Your task to perform on an android device: toggle pop-ups in chrome Image 0: 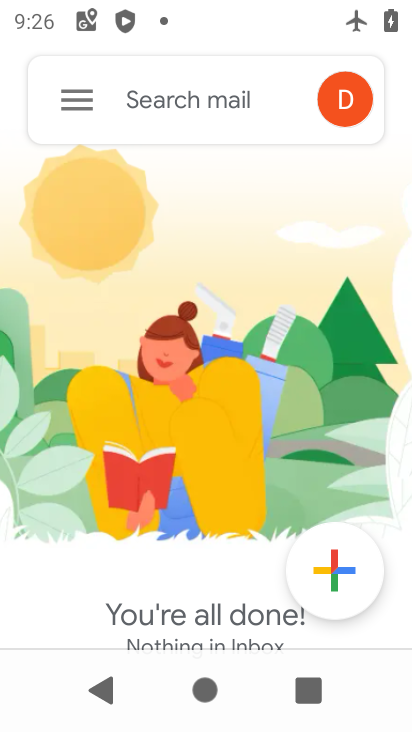
Step 0: press home button
Your task to perform on an android device: toggle pop-ups in chrome Image 1: 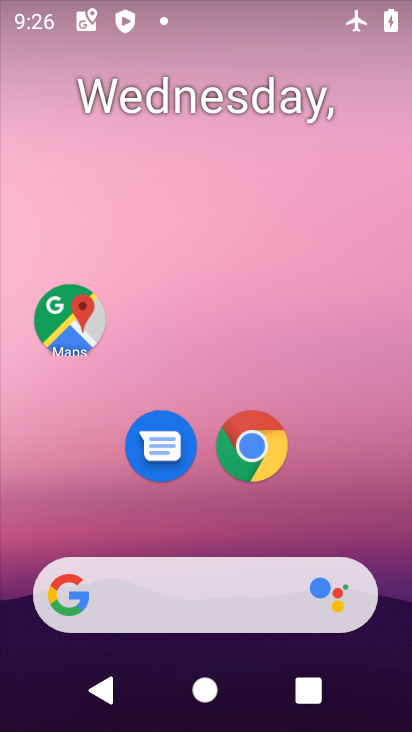
Step 1: click (265, 439)
Your task to perform on an android device: toggle pop-ups in chrome Image 2: 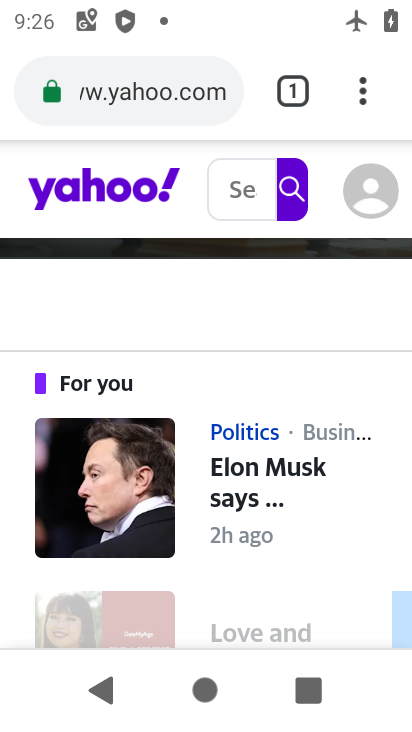
Step 2: drag from (366, 98) to (211, 482)
Your task to perform on an android device: toggle pop-ups in chrome Image 3: 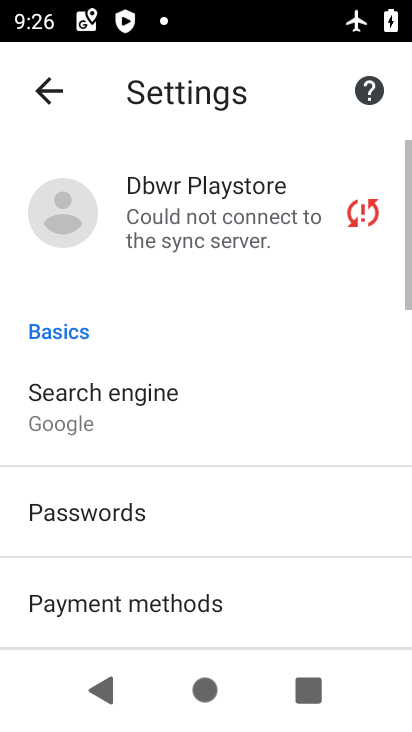
Step 3: drag from (238, 637) to (370, 254)
Your task to perform on an android device: toggle pop-ups in chrome Image 4: 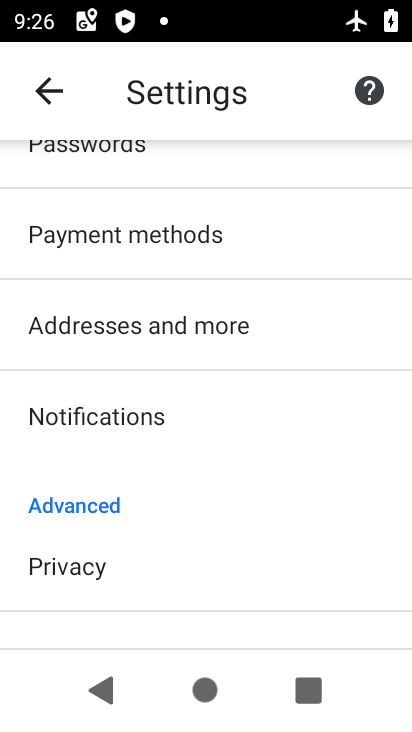
Step 4: drag from (224, 599) to (371, 244)
Your task to perform on an android device: toggle pop-ups in chrome Image 5: 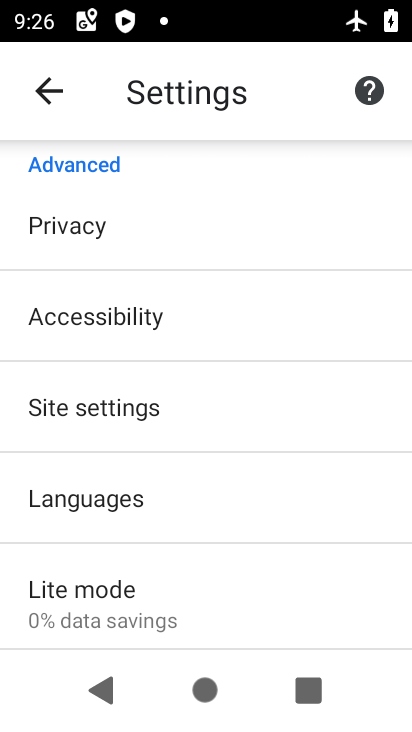
Step 5: click (156, 416)
Your task to perform on an android device: toggle pop-ups in chrome Image 6: 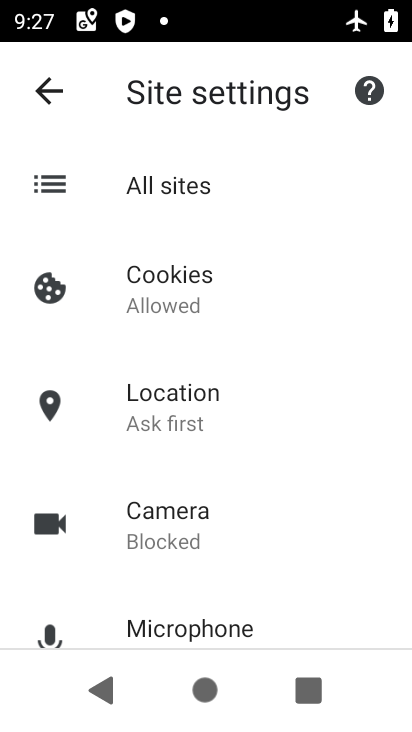
Step 6: drag from (281, 555) to (367, 226)
Your task to perform on an android device: toggle pop-ups in chrome Image 7: 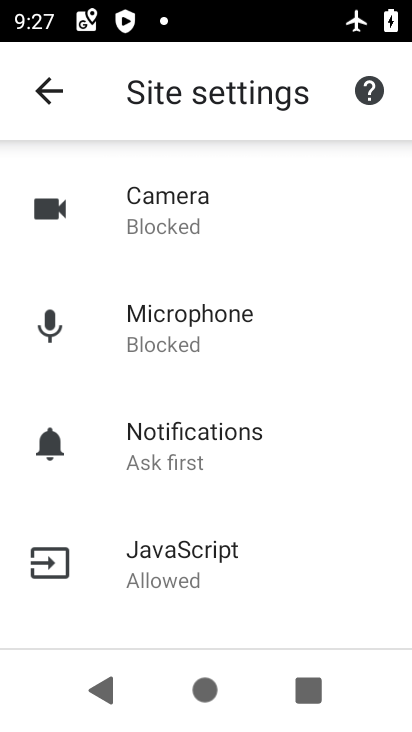
Step 7: drag from (271, 611) to (385, 212)
Your task to perform on an android device: toggle pop-ups in chrome Image 8: 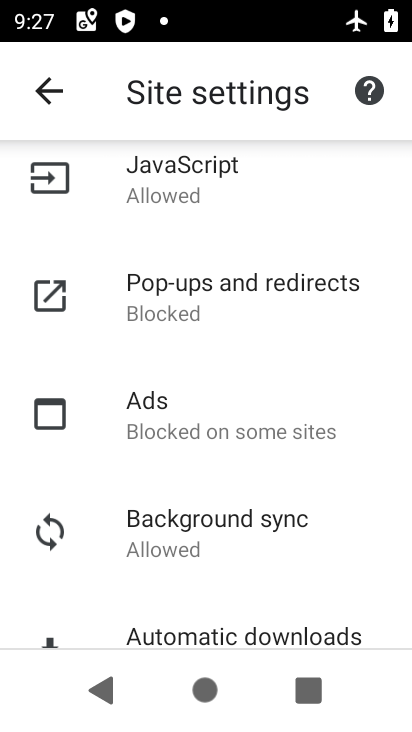
Step 8: click (232, 299)
Your task to perform on an android device: toggle pop-ups in chrome Image 9: 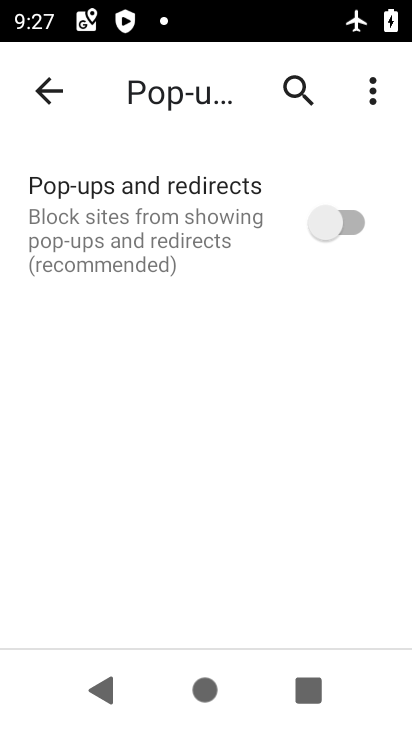
Step 9: click (346, 218)
Your task to perform on an android device: toggle pop-ups in chrome Image 10: 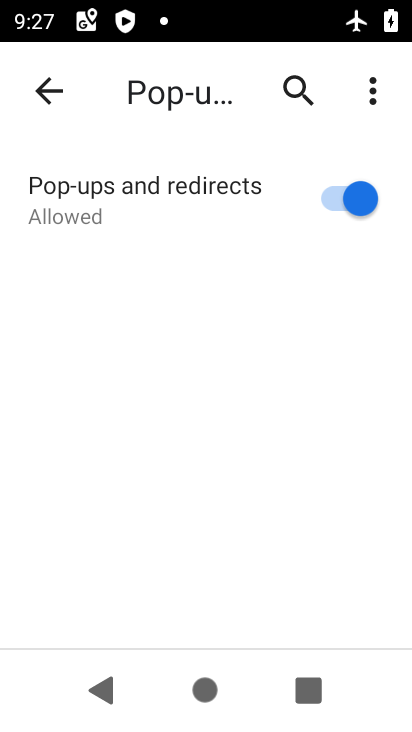
Step 10: task complete